Your task to perform on an android device: Set the phone to "Do not disturb". Image 0: 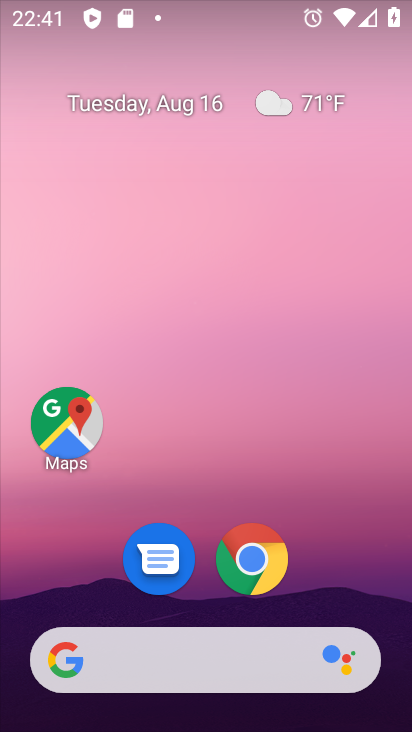
Step 0: drag from (139, 653) to (228, 40)
Your task to perform on an android device: Set the phone to "Do not disturb". Image 1: 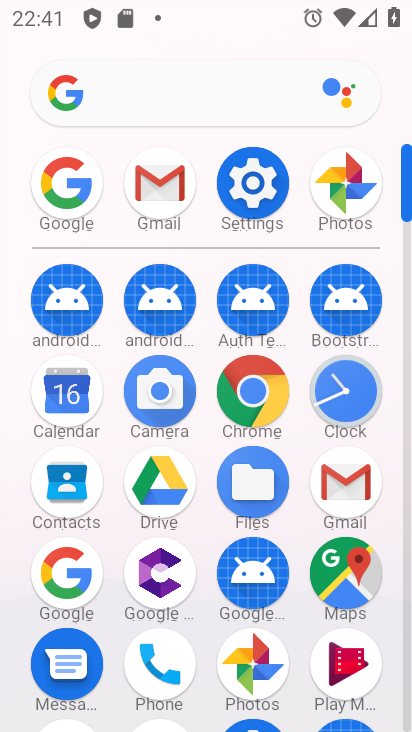
Step 1: click (252, 184)
Your task to perform on an android device: Set the phone to "Do not disturb". Image 2: 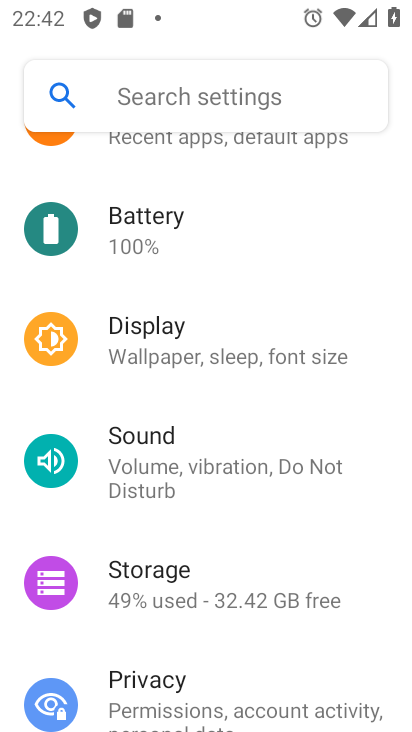
Step 2: click (249, 476)
Your task to perform on an android device: Set the phone to "Do not disturb". Image 3: 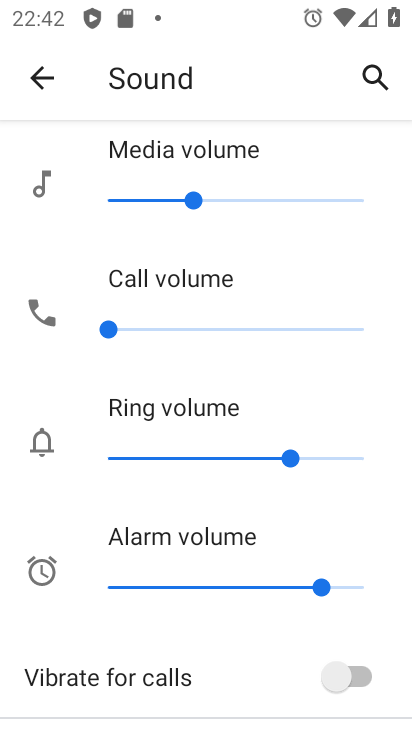
Step 3: drag from (232, 638) to (301, 388)
Your task to perform on an android device: Set the phone to "Do not disturb". Image 4: 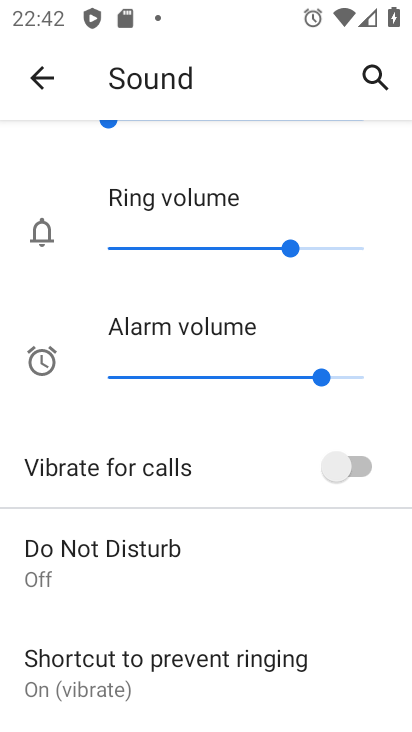
Step 4: click (178, 552)
Your task to perform on an android device: Set the phone to "Do not disturb". Image 5: 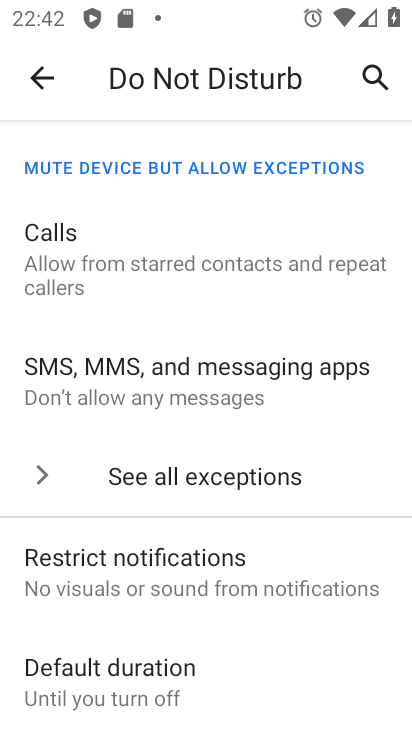
Step 5: drag from (251, 652) to (312, 378)
Your task to perform on an android device: Set the phone to "Do not disturb". Image 6: 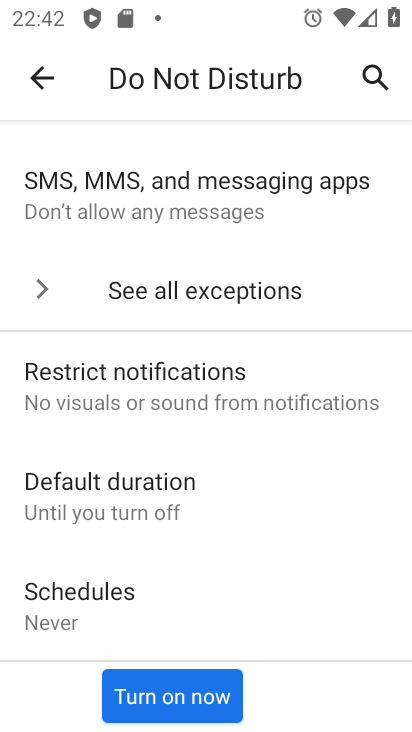
Step 6: click (168, 694)
Your task to perform on an android device: Set the phone to "Do not disturb". Image 7: 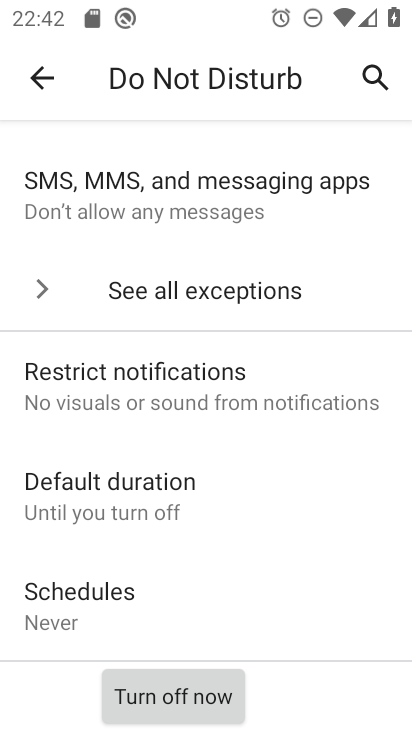
Step 7: task complete